Your task to perform on an android device: Show me popular videos on Youtube Image 0: 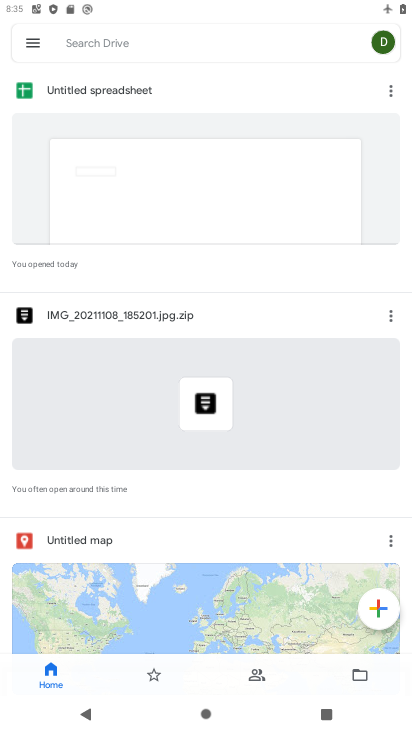
Step 0: press home button
Your task to perform on an android device: Show me popular videos on Youtube Image 1: 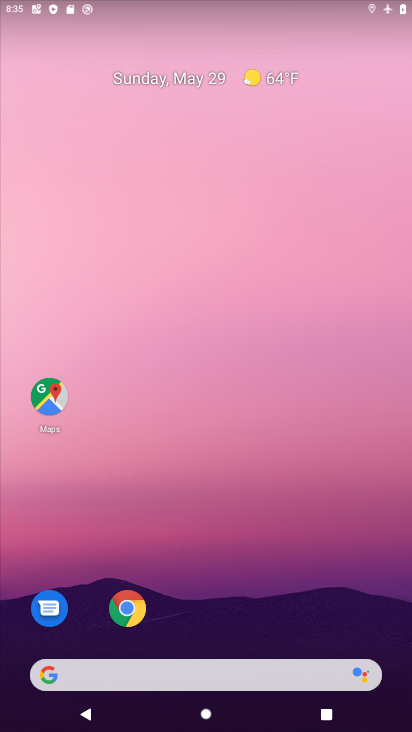
Step 1: drag from (245, 560) to (164, 129)
Your task to perform on an android device: Show me popular videos on Youtube Image 2: 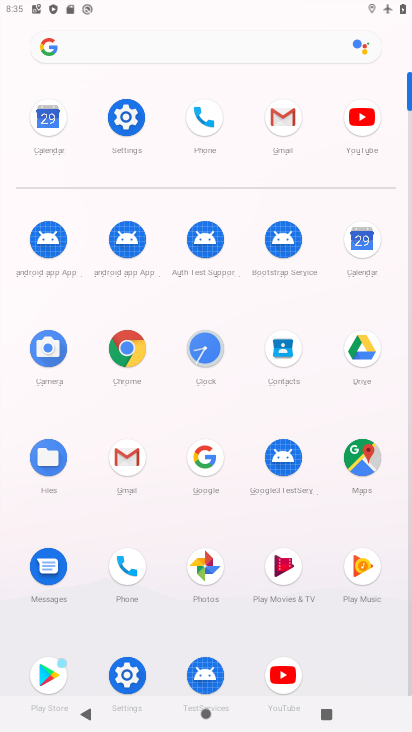
Step 2: click (282, 669)
Your task to perform on an android device: Show me popular videos on Youtube Image 3: 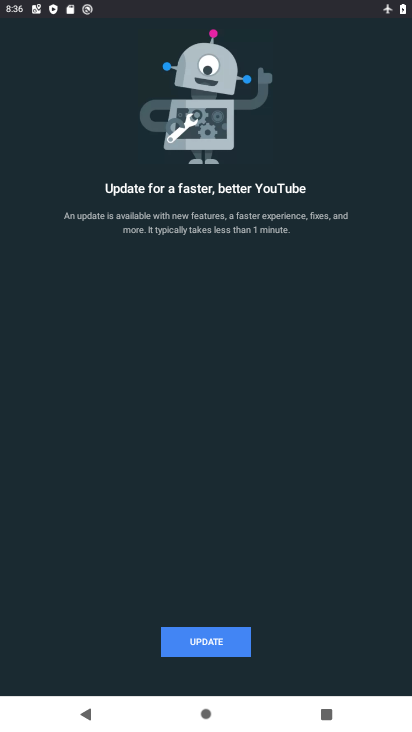
Step 3: click (208, 640)
Your task to perform on an android device: Show me popular videos on Youtube Image 4: 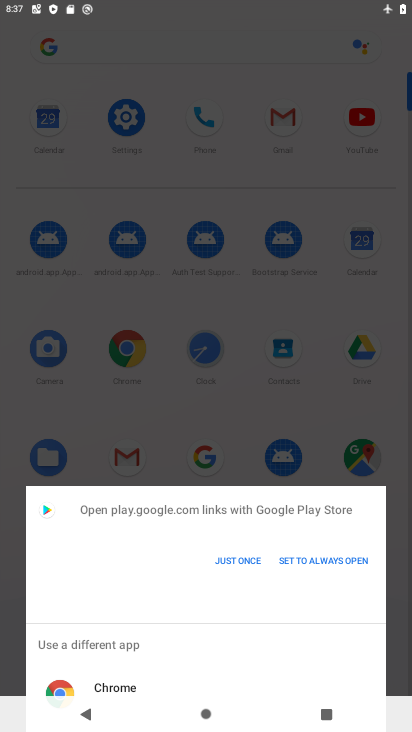
Step 4: click (241, 560)
Your task to perform on an android device: Show me popular videos on Youtube Image 5: 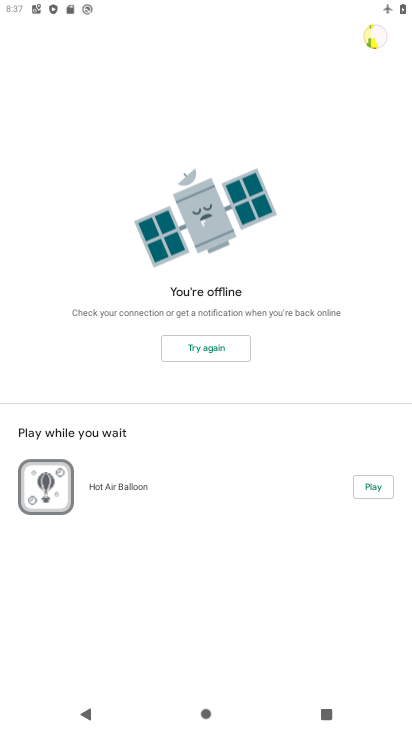
Step 5: press home button
Your task to perform on an android device: Show me popular videos on Youtube Image 6: 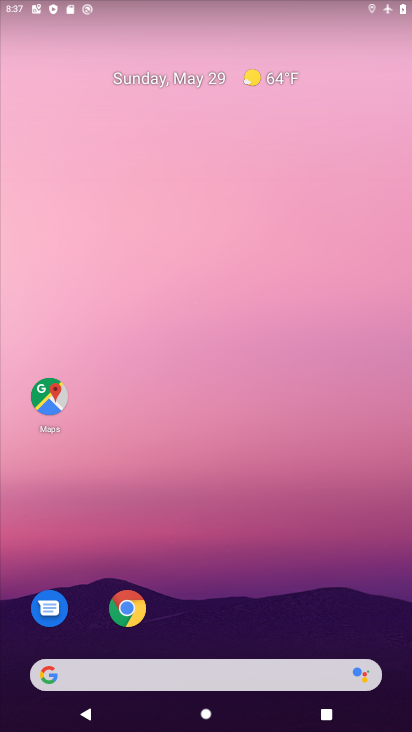
Step 6: drag from (203, 563) to (102, 7)
Your task to perform on an android device: Show me popular videos on Youtube Image 7: 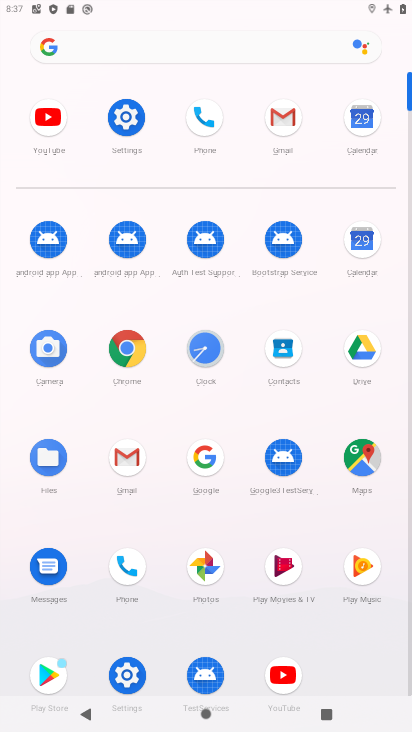
Step 7: click (50, 128)
Your task to perform on an android device: Show me popular videos on Youtube Image 8: 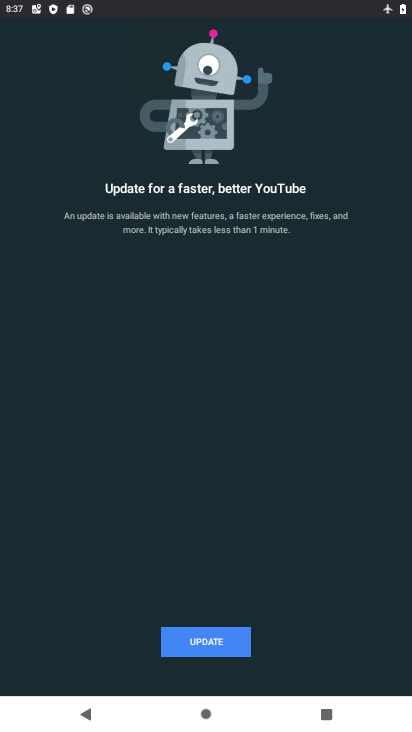
Step 8: click (218, 638)
Your task to perform on an android device: Show me popular videos on Youtube Image 9: 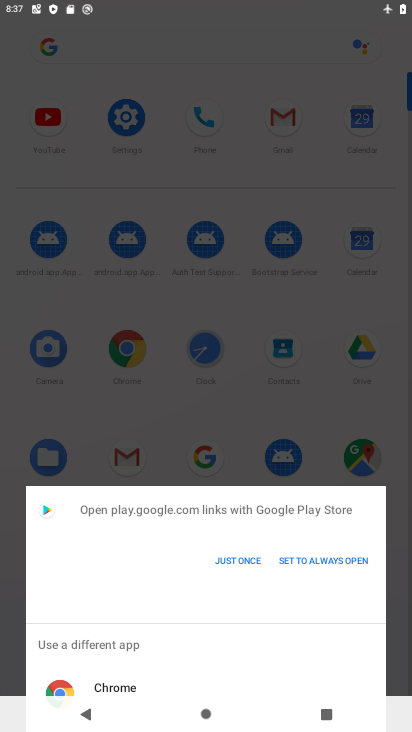
Step 9: click (241, 559)
Your task to perform on an android device: Show me popular videos on Youtube Image 10: 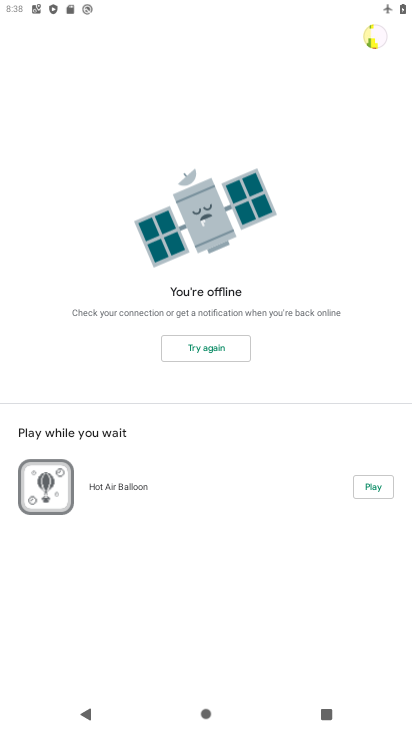
Step 10: task complete